Your task to perform on an android device: turn on javascript in the chrome app Image 0: 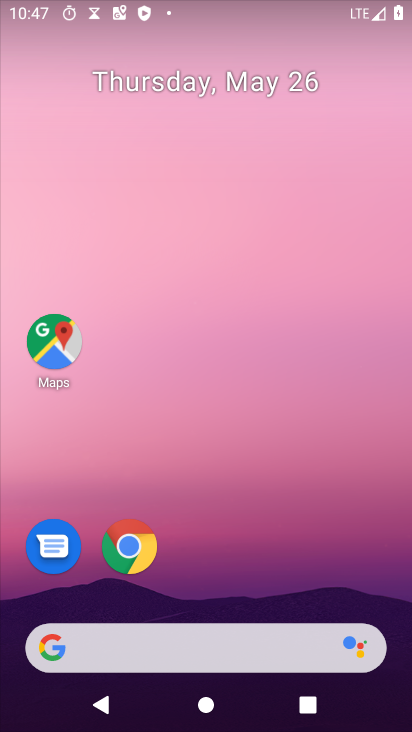
Step 0: drag from (340, 553) to (340, 175)
Your task to perform on an android device: turn on javascript in the chrome app Image 1: 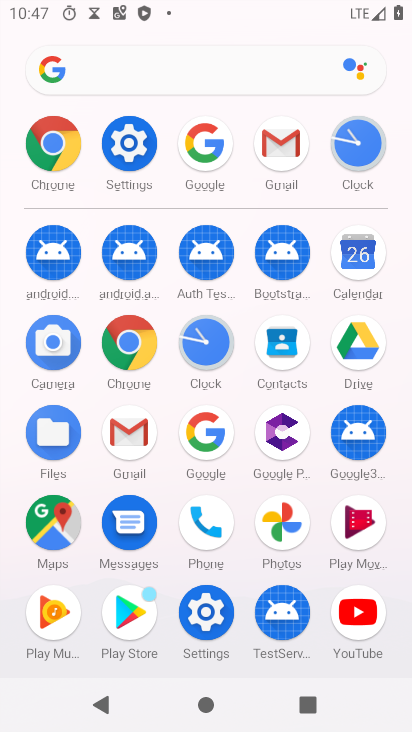
Step 1: click (125, 360)
Your task to perform on an android device: turn on javascript in the chrome app Image 2: 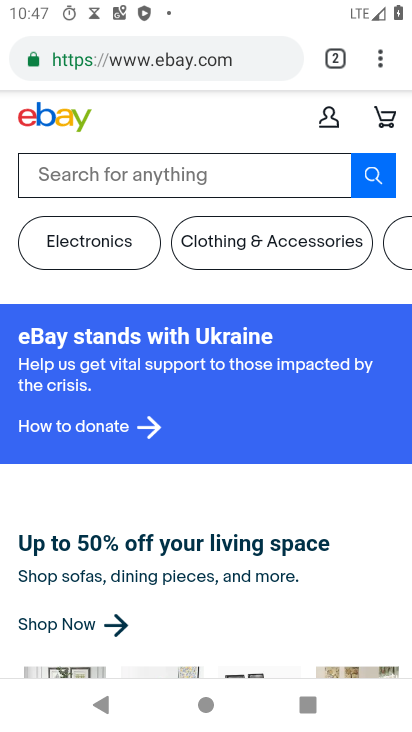
Step 2: drag from (383, 64) to (195, 577)
Your task to perform on an android device: turn on javascript in the chrome app Image 3: 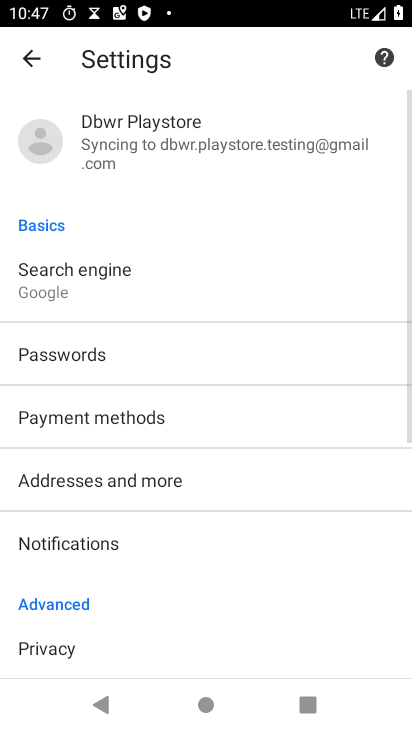
Step 3: drag from (196, 604) to (255, 260)
Your task to perform on an android device: turn on javascript in the chrome app Image 4: 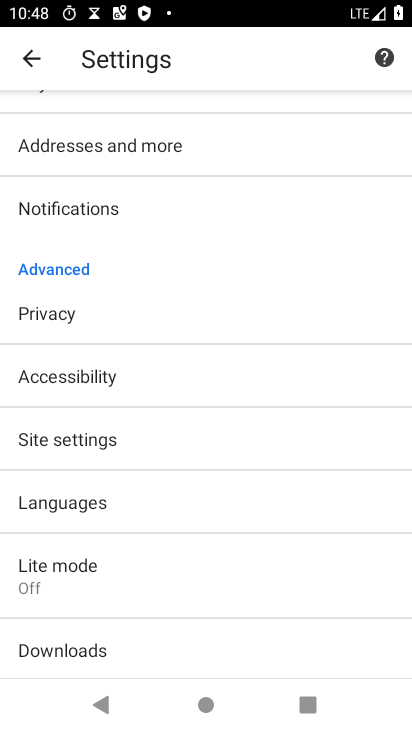
Step 4: drag from (183, 631) to (202, 382)
Your task to perform on an android device: turn on javascript in the chrome app Image 5: 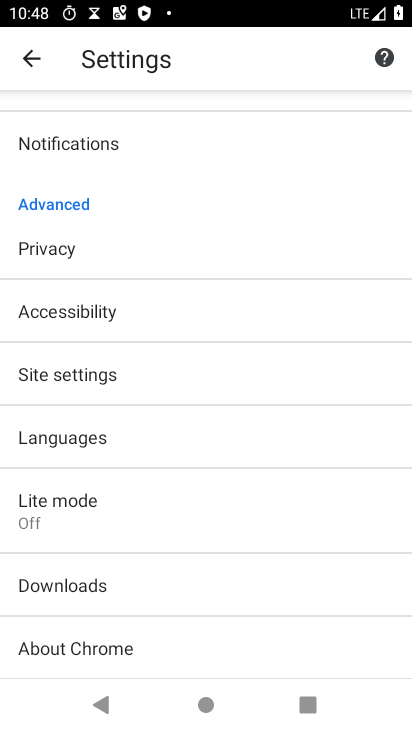
Step 5: drag from (88, 466) to (136, 279)
Your task to perform on an android device: turn on javascript in the chrome app Image 6: 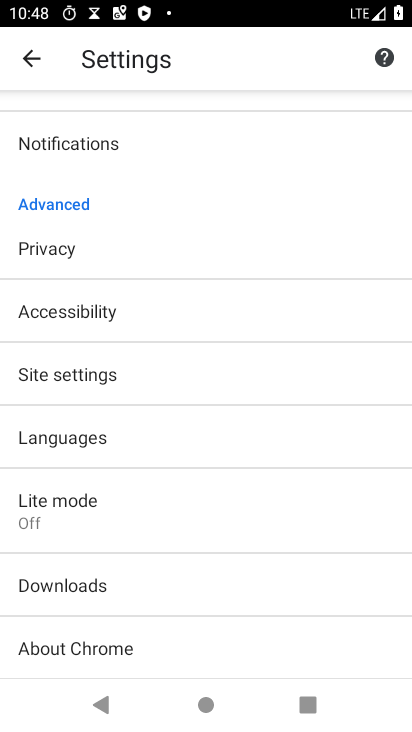
Step 6: click (120, 377)
Your task to perform on an android device: turn on javascript in the chrome app Image 7: 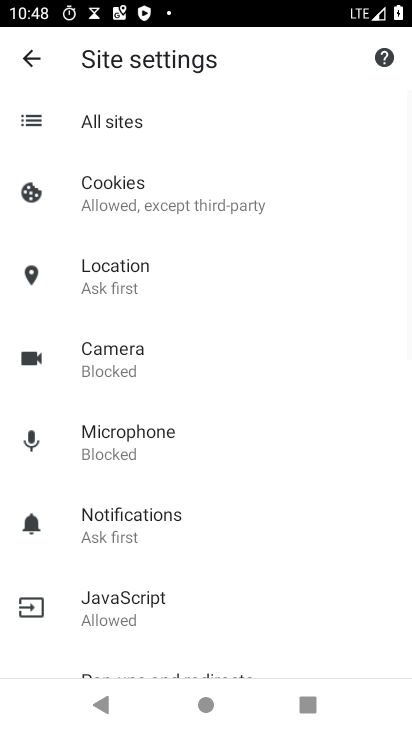
Step 7: drag from (232, 548) to (262, 265)
Your task to perform on an android device: turn on javascript in the chrome app Image 8: 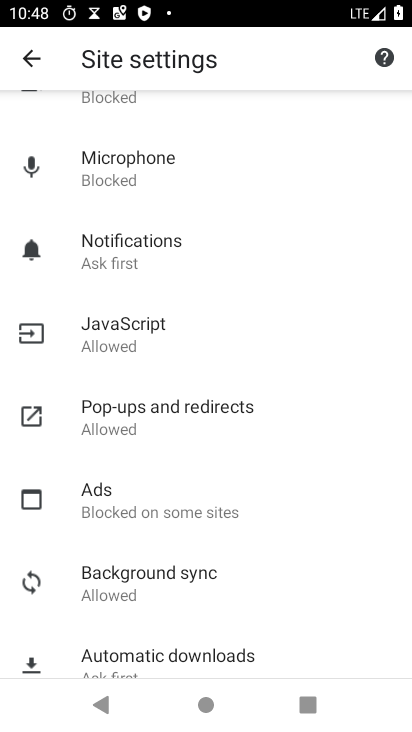
Step 8: click (147, 318)
Your task to perform on an android device: turn on javascript in the chrome app Image 9: 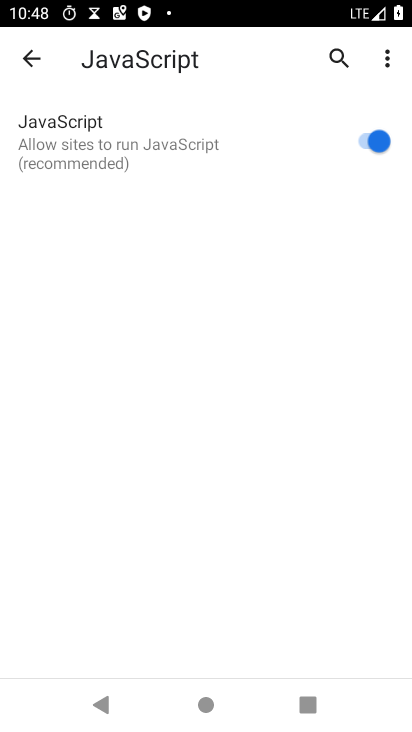
Step 9: task complete